Your task to perform on an android device: turn off sleep mode Image 0: 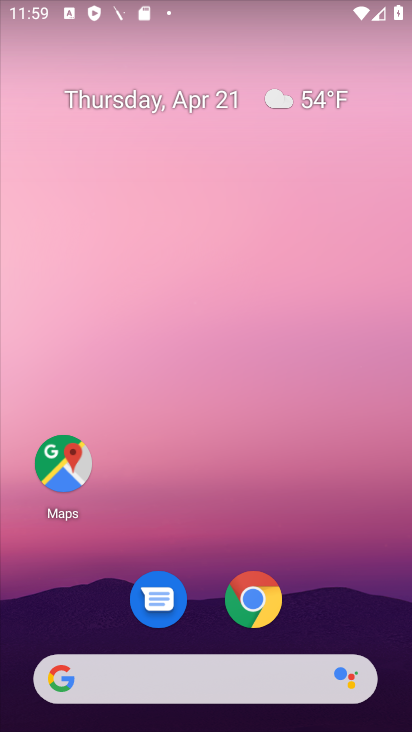
Step 0: drag from (227, 511) to (200, 3)
Your task to perform on an android device: turn off sleep mode Image 1: 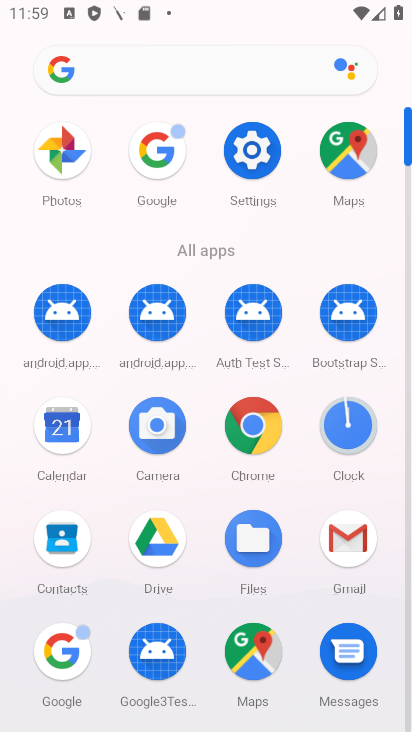
Step 1: click (252, 162)
Your task to perform on an android device: turn off sleep mode Image 2: 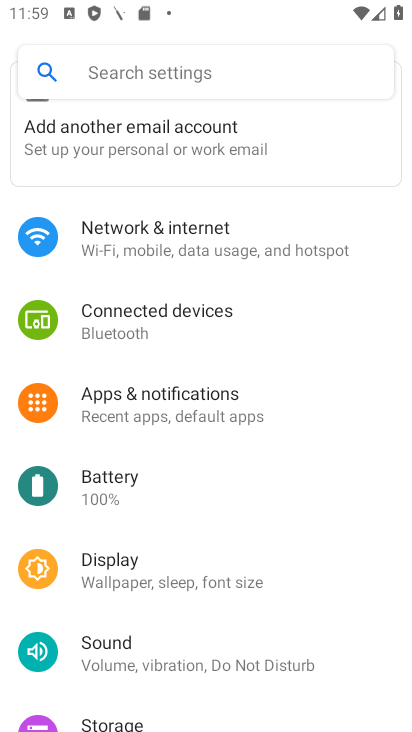
Step 2: click (190, 571)
Your task to perform on an android device: turn off sleep mode Image 3: 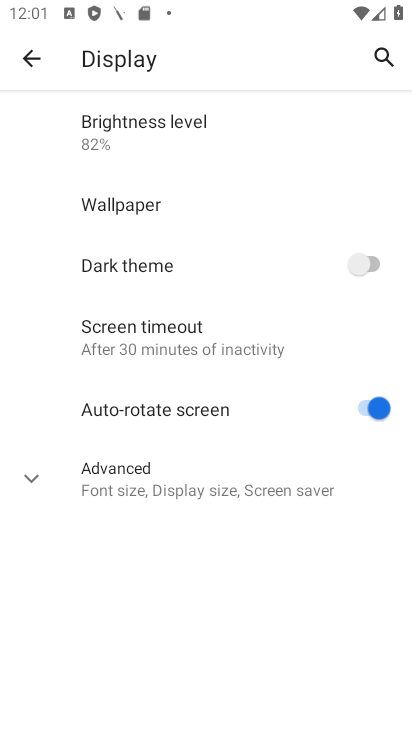
Step 3: task complete